Your task to perform on an android device: Open settings on Google Maps Image 0: 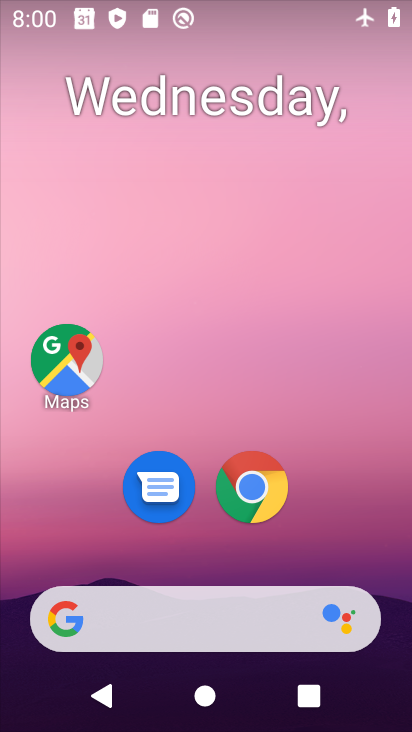
Step 0: click (65, 367)
Your task to perform on an android device: Open settings on Google Maps Image 1: 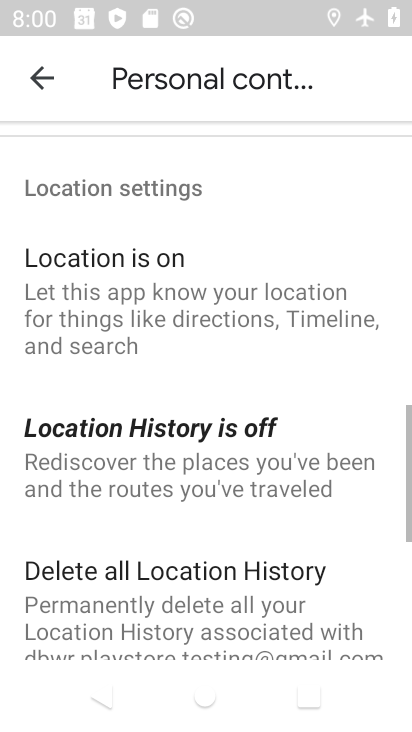
Step 1: click (39, 78)
Your task to perform on an android device: Open settings on Google Maps Image 2: 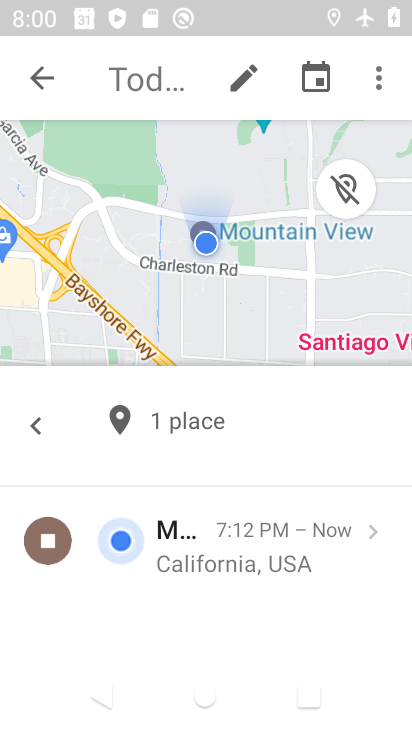
Step 2: click (39, 81)
Your task to perform on an android device: Open settings on Google Maps Image 3: 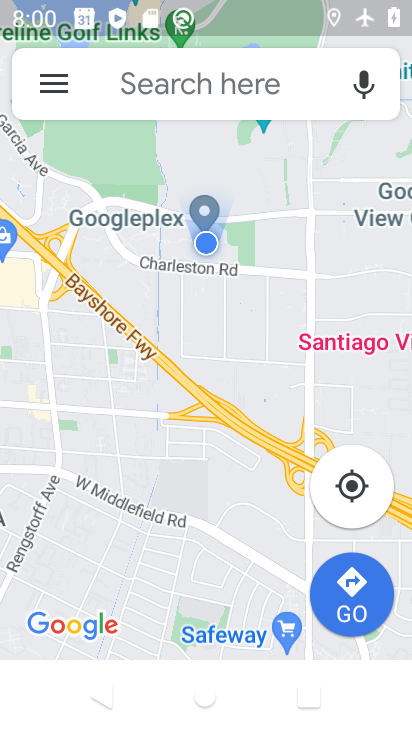
Step 3: click (39, 81)
Your task to perform on an android device: Open settings on Google Maps Image 4: 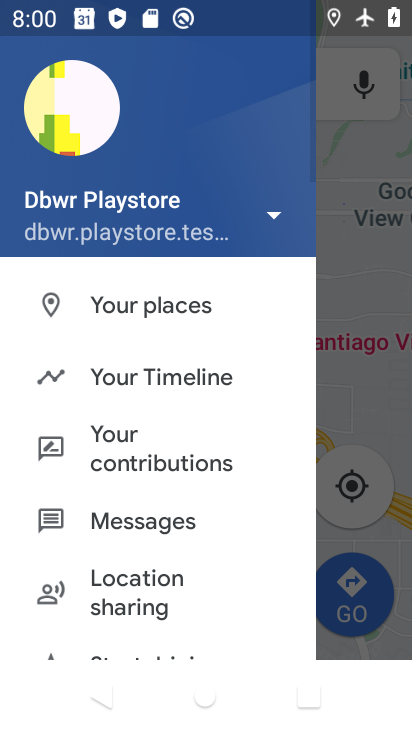
Step 4: drag from (193, 605) to (203, 9)
Your task to perform on an android device: Open settings on Google Maps Image 5: 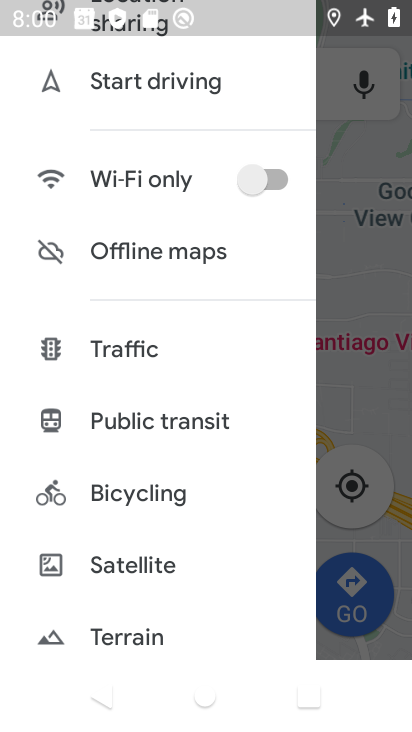
Step 5: drag from (219, 547) to (213, 119)
Your task to perform on an android device: Open settings on Google Maps Image 6: 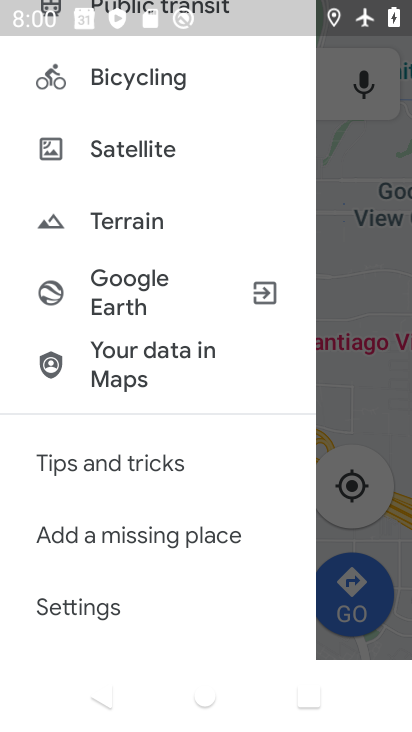
Step 6: drag from (131, 541) to (131, 329)
Your task to perform on an android device: Open settings on Google Maps Image 7: 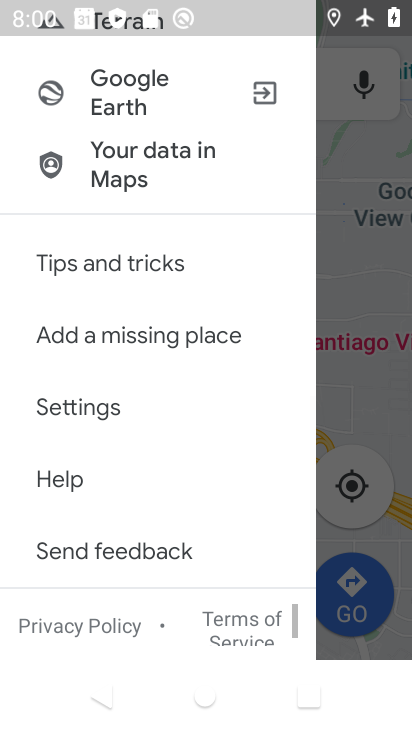
Step 7: click (100, 451)
Your task to perform on an android device: Open settings on Google Maps Image 8: 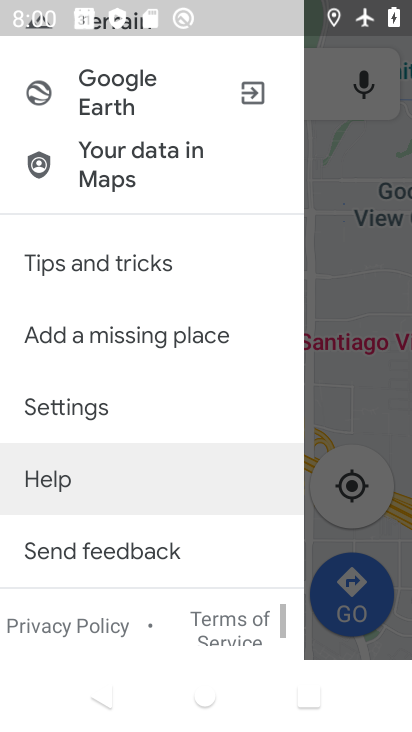
Step 8: click (100, 409)
Your task to perform on an android device: Open settings on Google Maps Image 9: 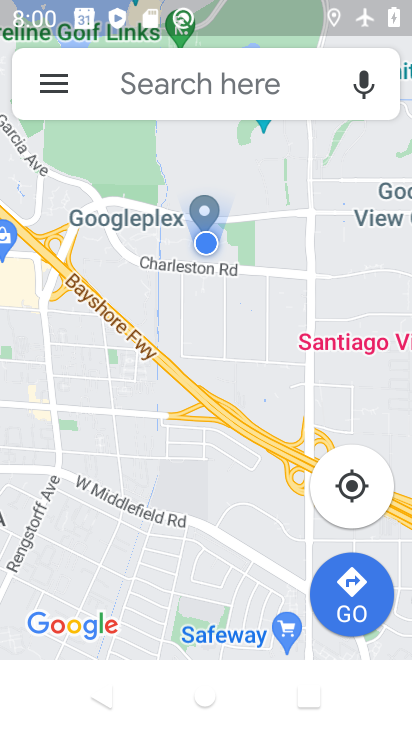
Step 9: click (41, 85)
Your task to perform on an android device: Open settings on Google Maps Image 10: 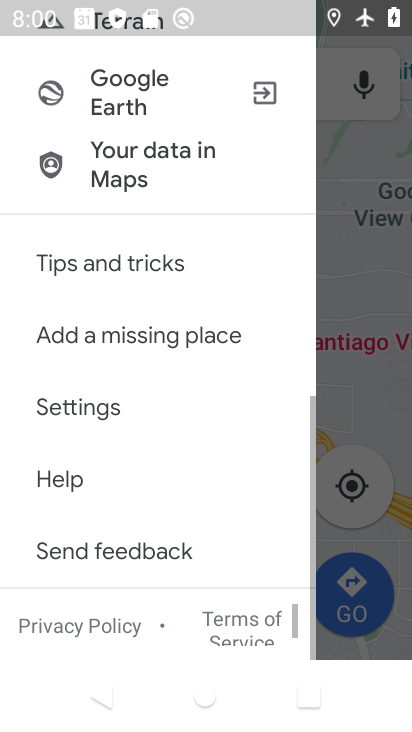
Step 10: click (90, 415)
Your task to perform on an android device: Open settings on Google Maps Image 11: 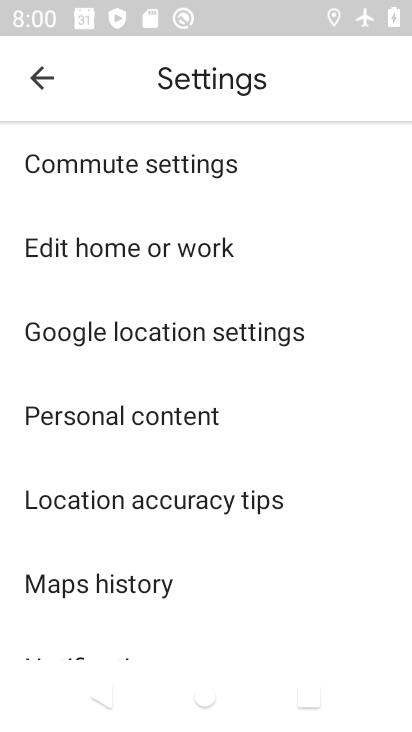
Step 11: task complete